Your task to perform on an android device: Is it going to rain tomorrow? Image 0: 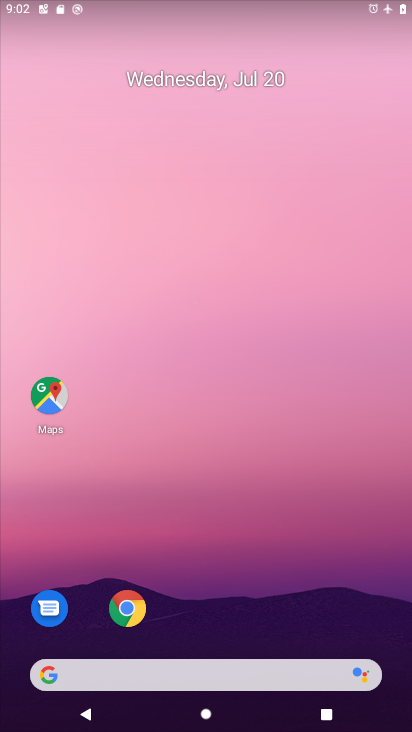
Step 0: drag from (209, 619) to (256, 222)
Your task to perform on an android device: Is it going to rain tomorrow? Image 1: 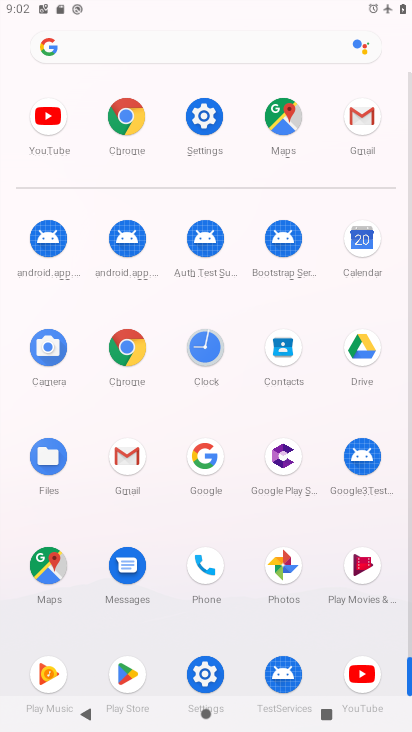
Step 1: click (133, 118)
Your task to perform on an android device: Is it going to rain tomorrow? Image 2: 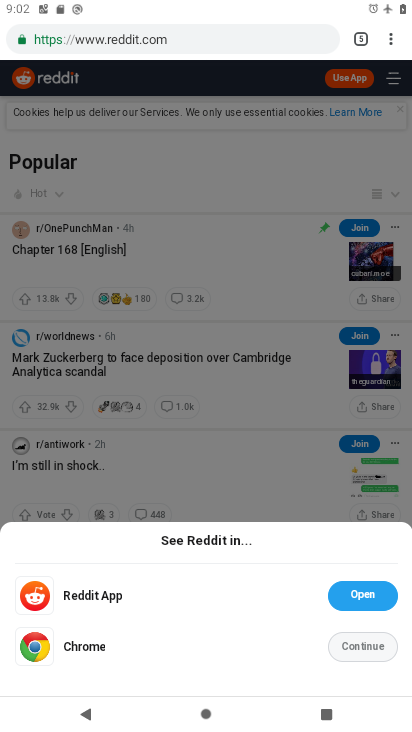
Step 2: click (396, 41)
Your task to perform on an android device: Is it going to rain tomorrow? Image 3: 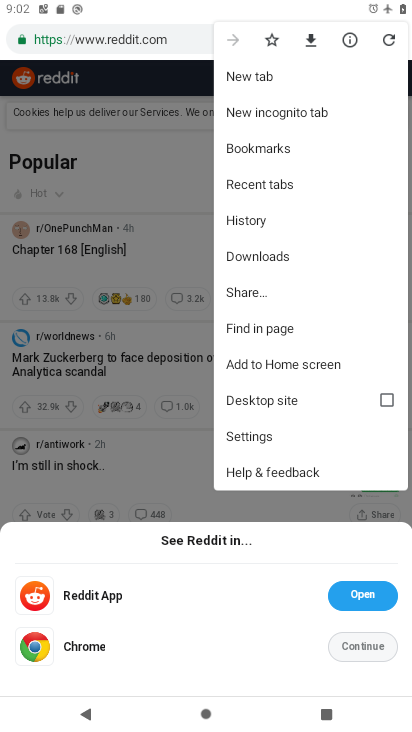
Step 3: click (250, 75)
Your task to perform on an android device: Is it going to rain tomorrow? Image 4: 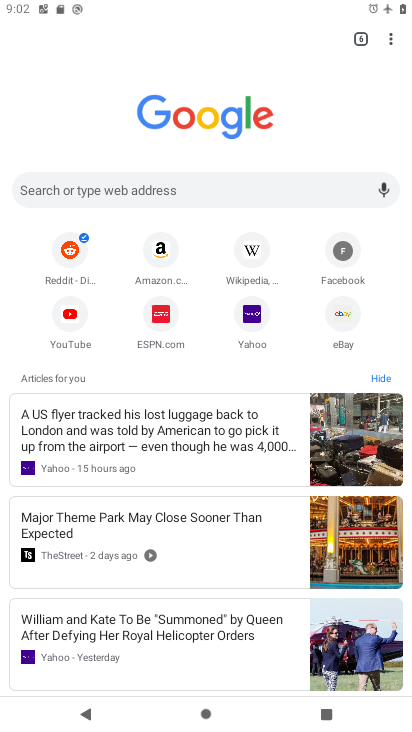
Step 4: click (252, 183)
Your task to perform on an android device: Is it going to rain tomorrow? Image 5: 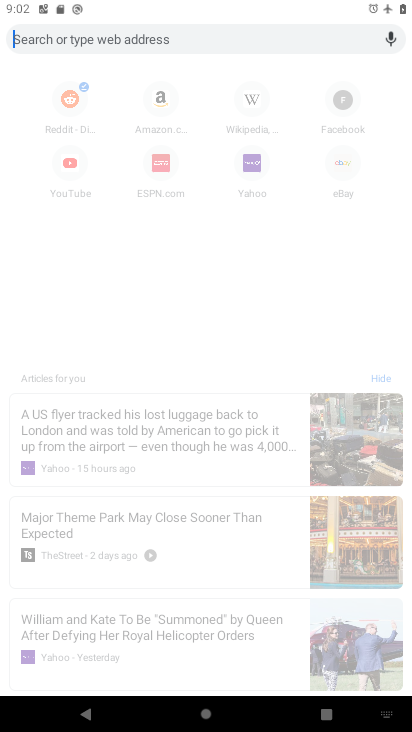
Step 5: type "Is it going to rain tomorrow "
Your task to perform on an android device: Is it going to rain tomorrow? Image 6: 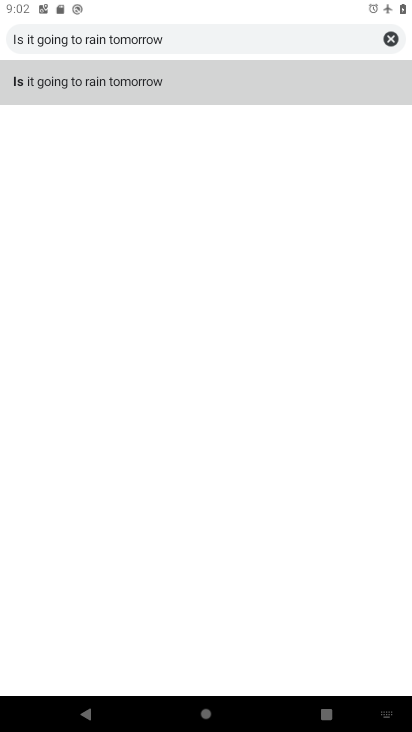
Step 6: click (147, 73)
Your task to perform on an android device: Is it going to rain tomorrow? Image 7: 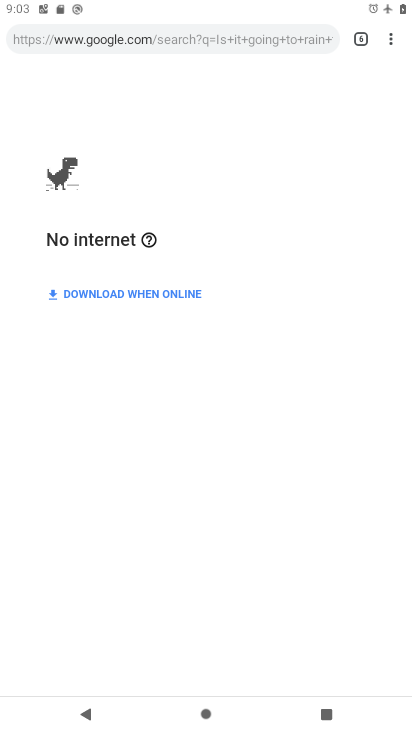
Step 7: task complete